Your task to perform on an android device: open chrome privacy settings Image 0: 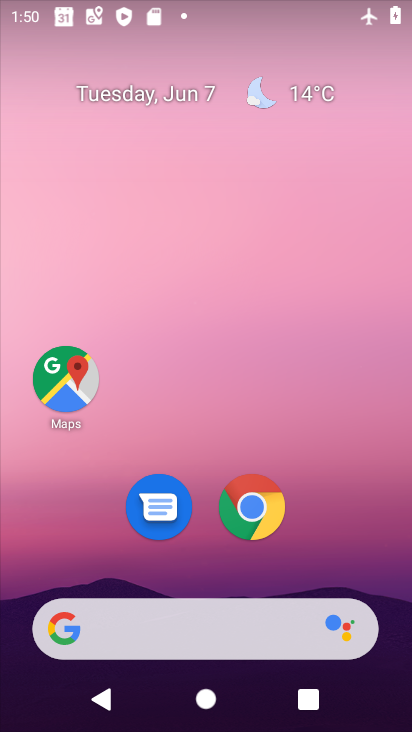
Step 0: click (250, 504)
Your task to perform on an android device: open chrome privacy settings Image 1: 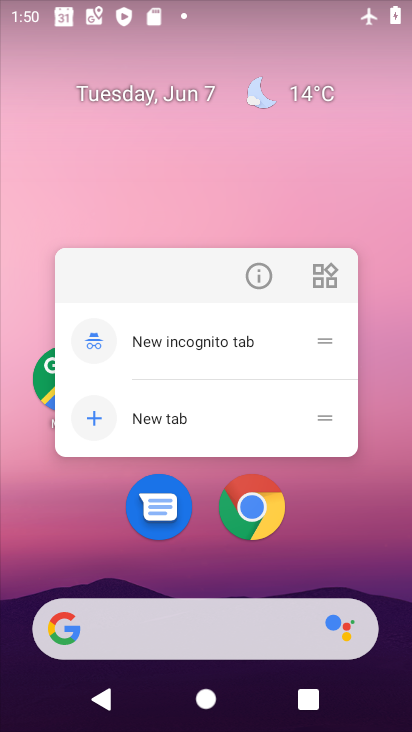
Step 1: click (250, 504)
Your task to perform on an android device: open chrome privacy settings Image 2: 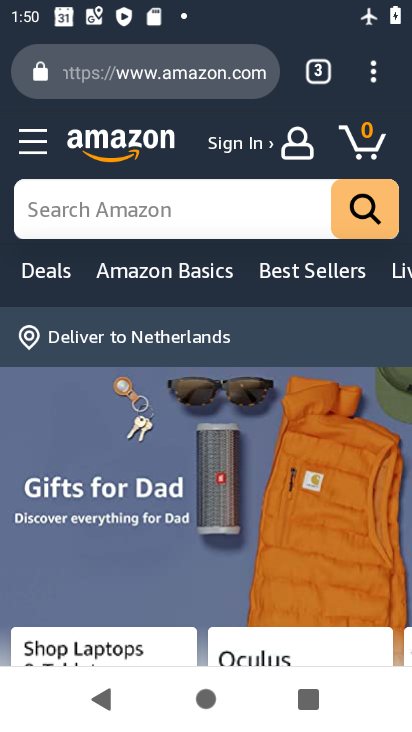
Step 2: click (373, 78)
Your task to perform on an android device: open chrome privacy settings Image 3: 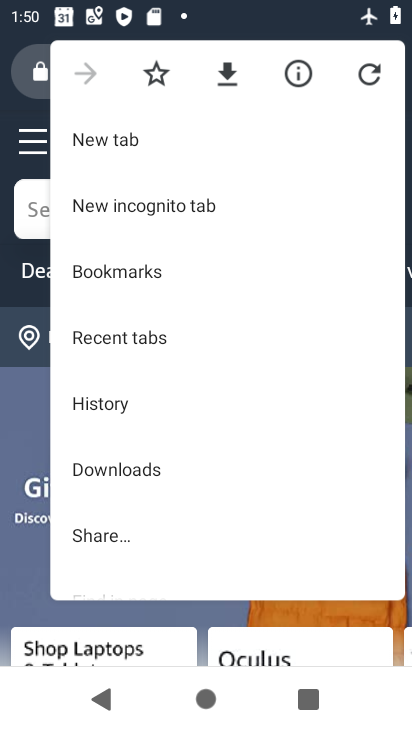
Step 3: drag from (210, 511) to (208, 321)
Your task to perform on an android device: open chrome privacy settings Image 4: 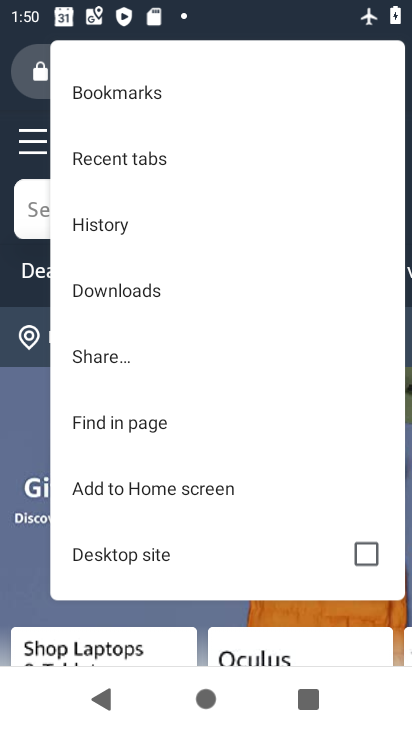
Step 4: drag from (244, 505) to (217, 298)
Your task to perform on an android device: open chrome privacy settings Image 5: 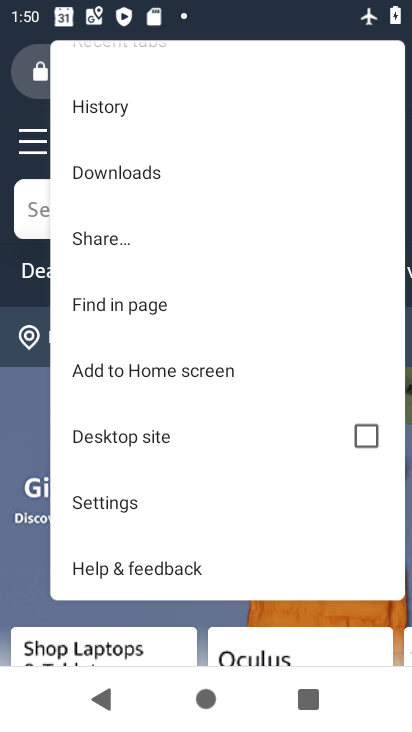
Step 5: click (123, 506)
Your task to perform on an android device: open chrome privacy settings Image 6: 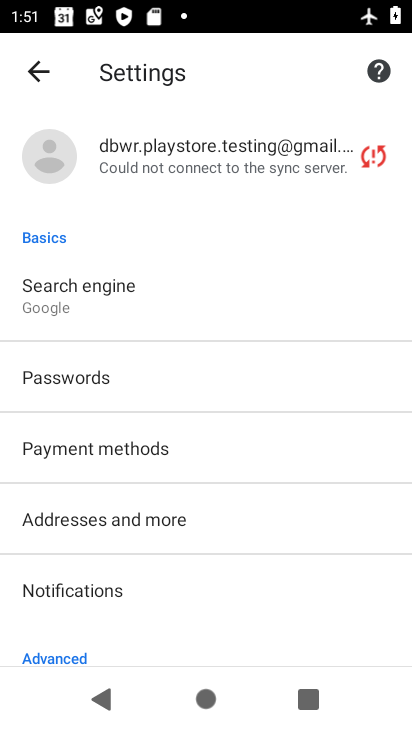
Step 6: drag from (265, 616) to (239, 348)
Your task to perform on an android device: open chrome privacy settings Image 7: 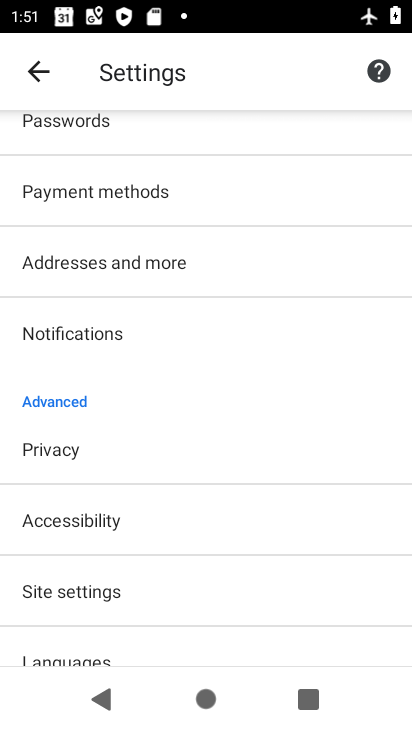
Step 7: click (45, 447)
Your task to perform on an android device: open chrome privacy settings Image 8: 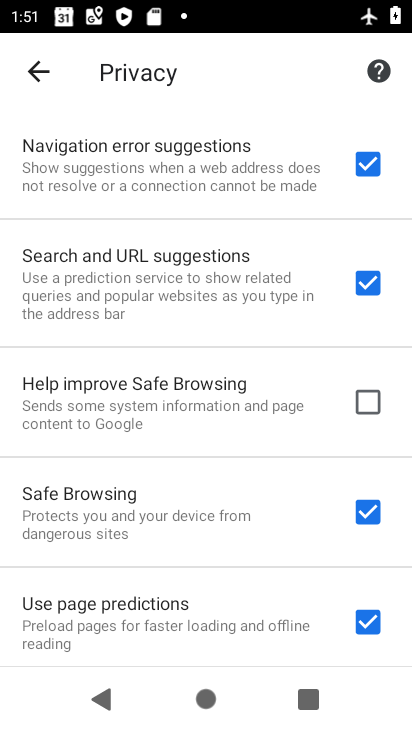
Step 8: task complete